Your task to perform on an android device: Search for usb-c to usb-a on ebay, select the first entry, add it to the cart, then select checkout. Image 0: 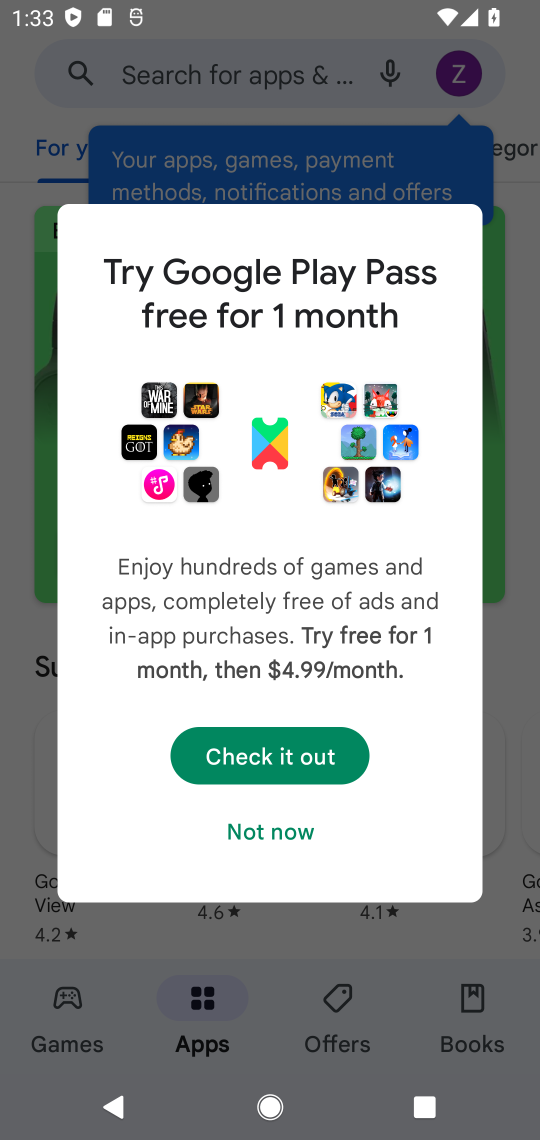
Step 0: press home button
Your task to perform on an android device: Search for usb-c to usb-a on ebay, select the first entry, add it to the cart, then select checkout. Image 1: 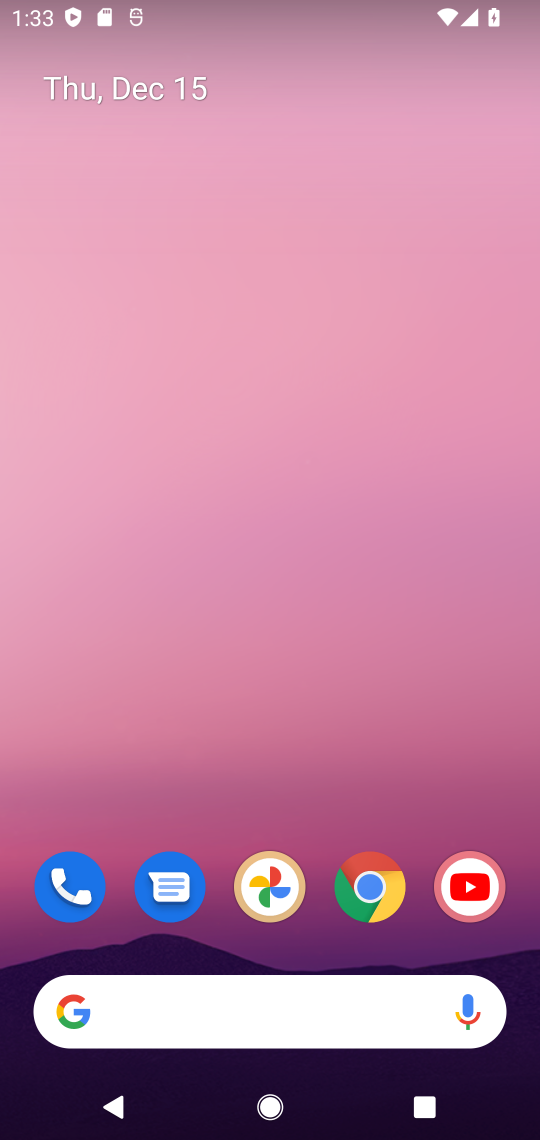
Step 1: click (383, 880)
Your task to perform on an android device: Search for usb-c to usb-a on ebay, select the first entry, add it to the cart, then select checkout. Image 2: 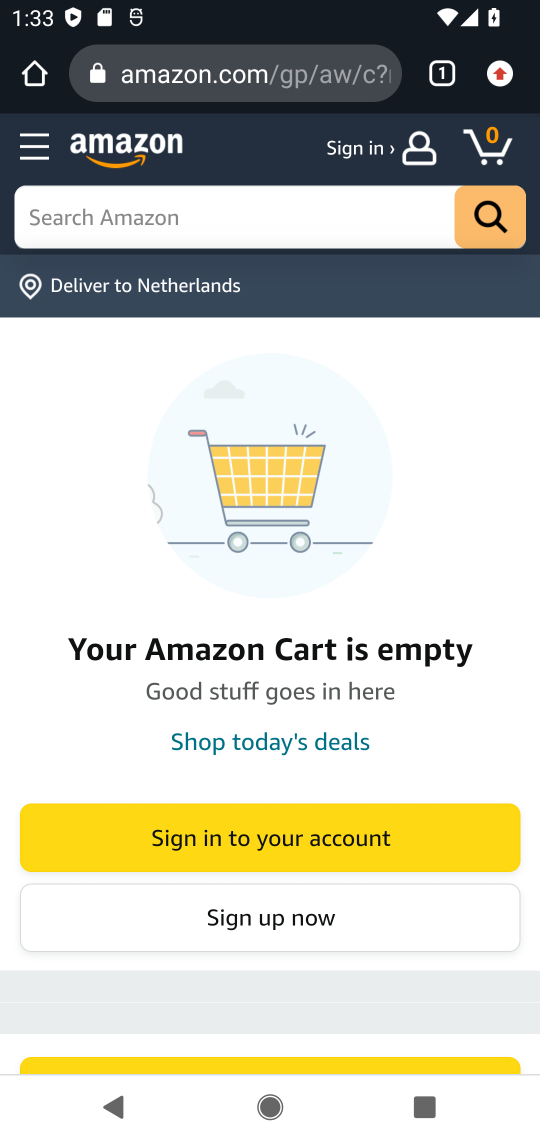
Step 2: click (181, 75)
Your task to perform on an android device: Search for usb-c to usb-a on ebay, select the first entry, add it to the cart, then select checkout. Image 3: 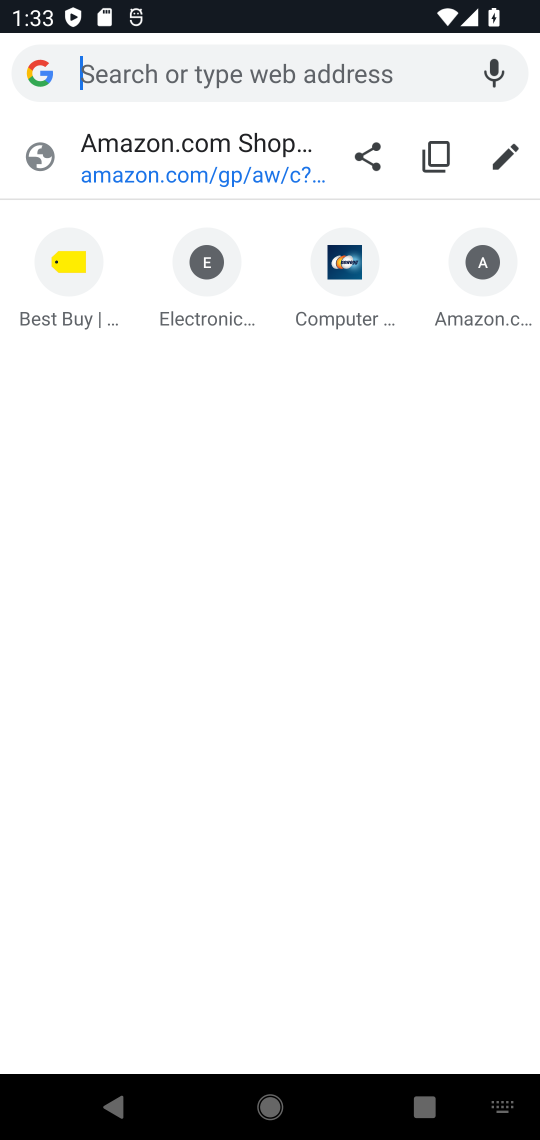
Step 3: type "ebay.com"
Your task to perform on an android device: Search for usb-c to usb-a on ebay, select the first entry, add it to the cart, then select checkout. Image 4: 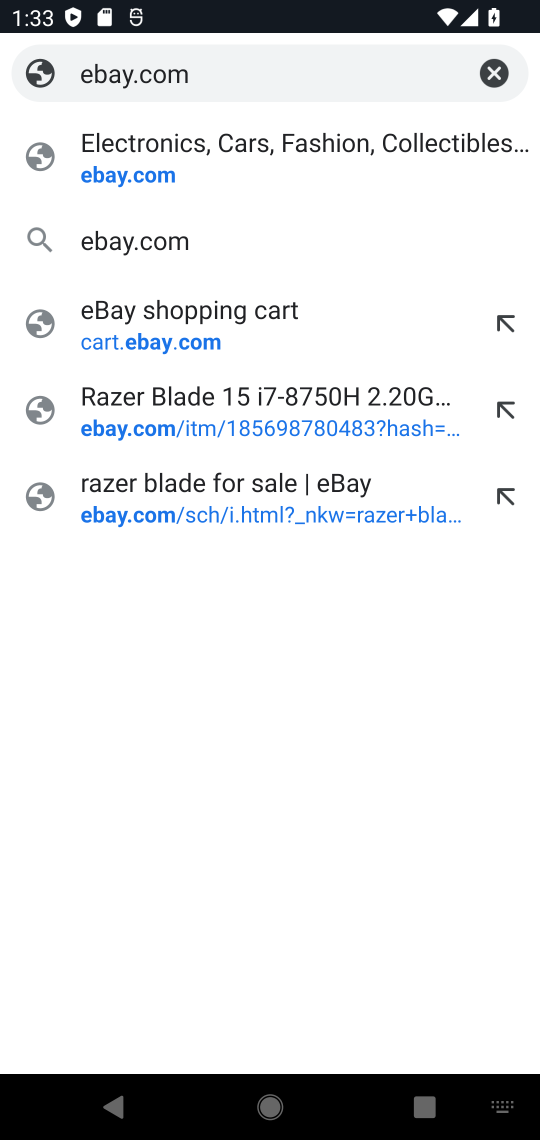
Step 4: click (123, 176)
Your task to perform on an android device: Search for usb-c to usb-a on ebay, select the first entry, add it to the cart, then select checkout. Image 5: 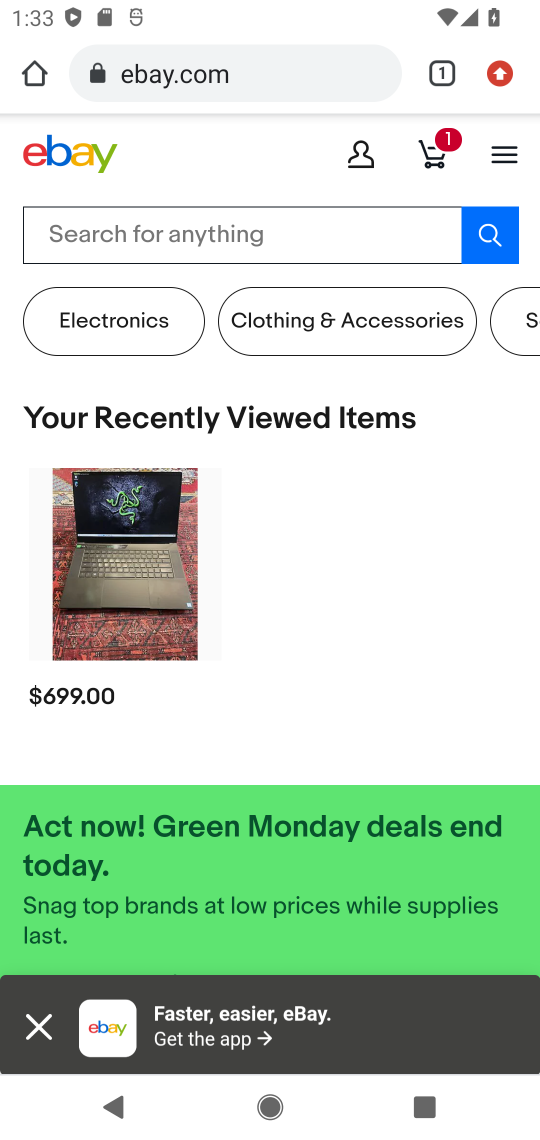
Step 5: click (89, 241)
Your task to perform on an android device: Search for usb-c to usb-a on ebay, select the first entry, add it to the cart, then select checkout. Image 6: 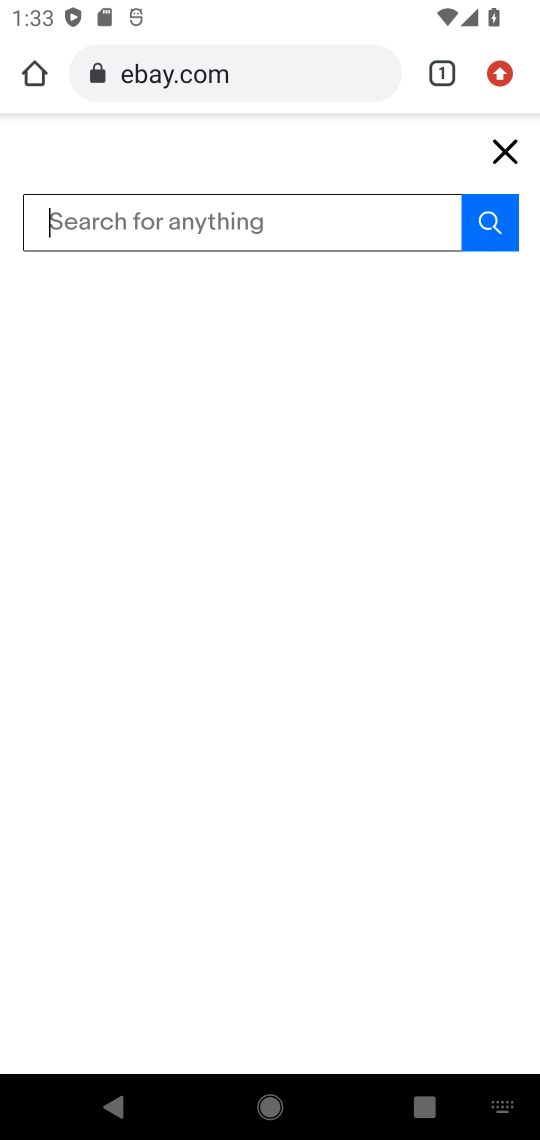
Step 6: type "usb-c to usb-a"
Your task to perform on an android device: Search for usb-c to usb-a on ebay, select the first entry, add it to the cart, then select checkout. Image 7: 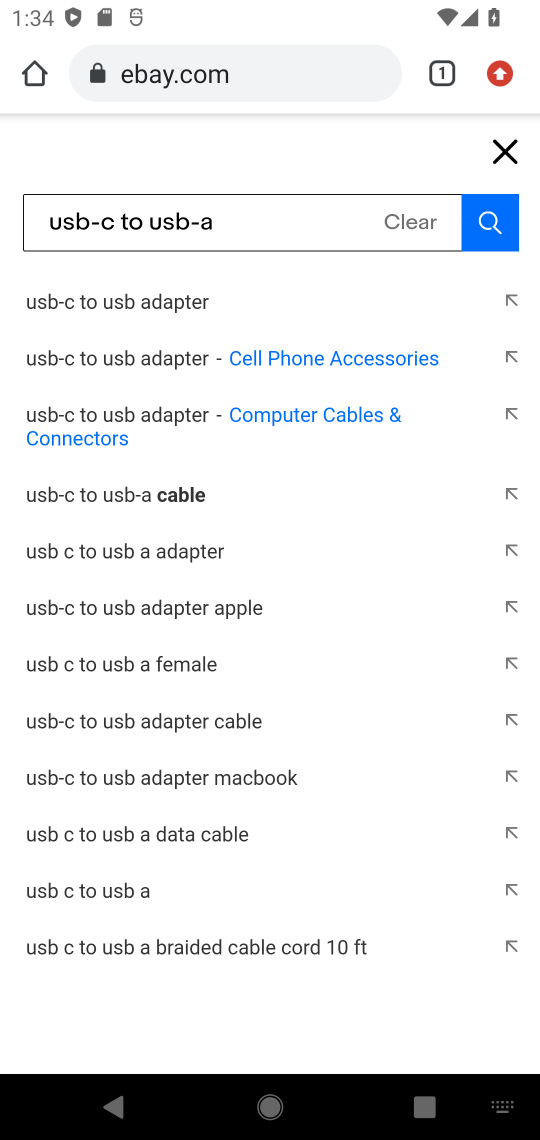
Step 7: click (494, 227)
Your task to perform on an android device: Search for usb-c to usb-a on ebay, select the first entry, add it to the cart, then select checkout. Image 8: 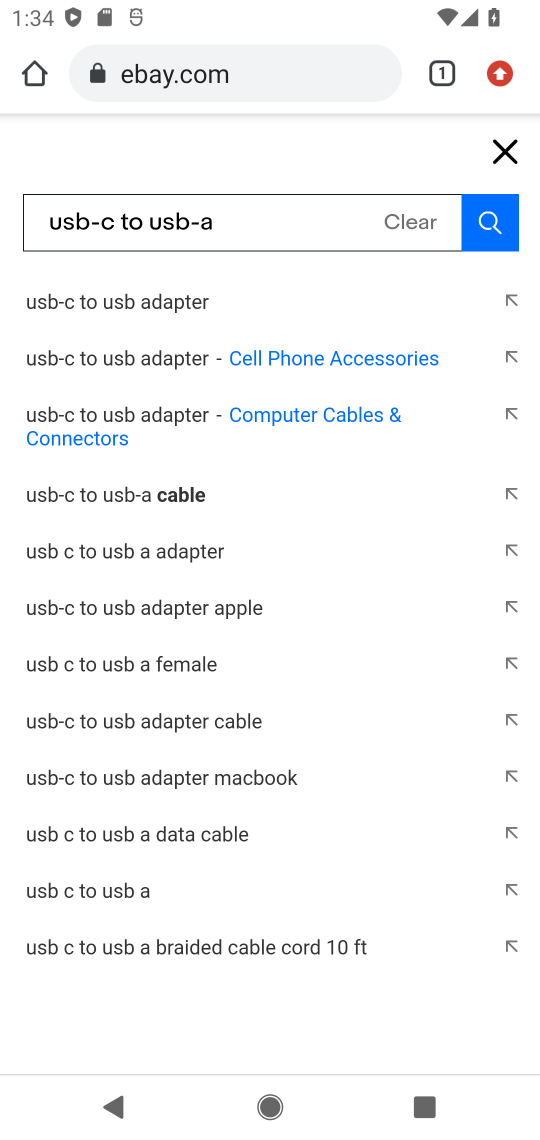
Step 8: click (492, 222)
Your task to perform on an android device: Search for usb-c to usb-a on ebay, select the first entry, add it to the cart, then select checkout. Image 9: 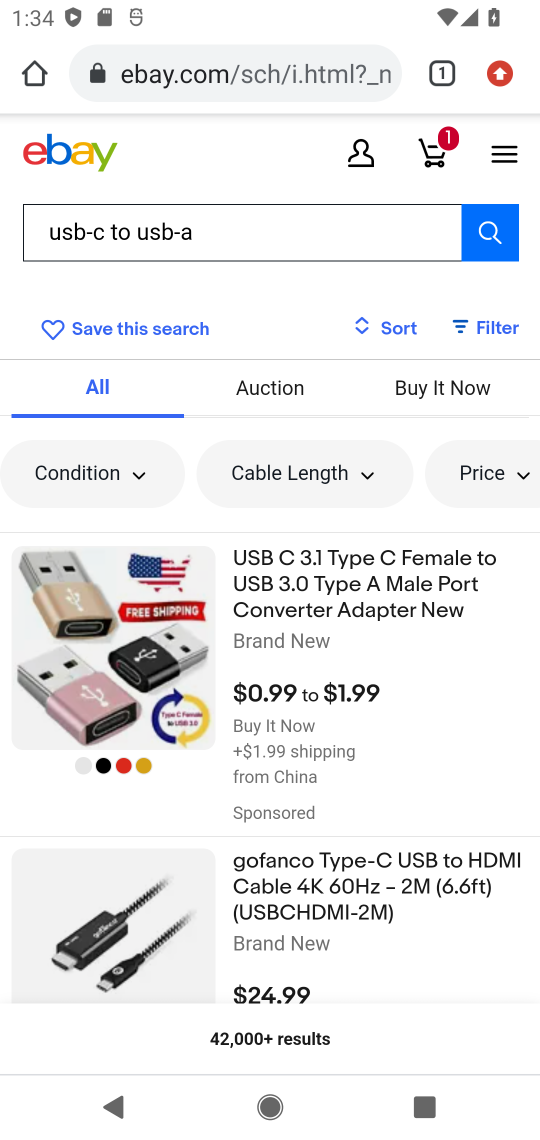
Step 9: click (285, 627)
Your task to perform on an android device: Search for usb-c to usb-a on ebay, select the first entry, add it to the cart, then select checkout. Image 10: 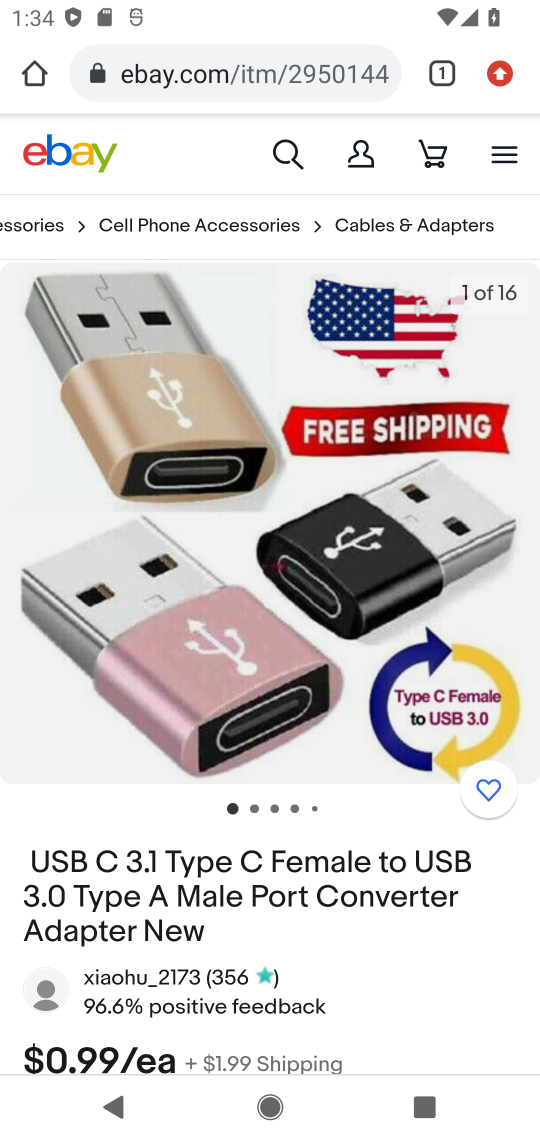
Step 10: drag from (235, 886) to (271, 418)
Your task to perform on an android device: Search for usb-c to usb-a on ebay, select the first entry, add it to the cart, then select checkout. Image 11: 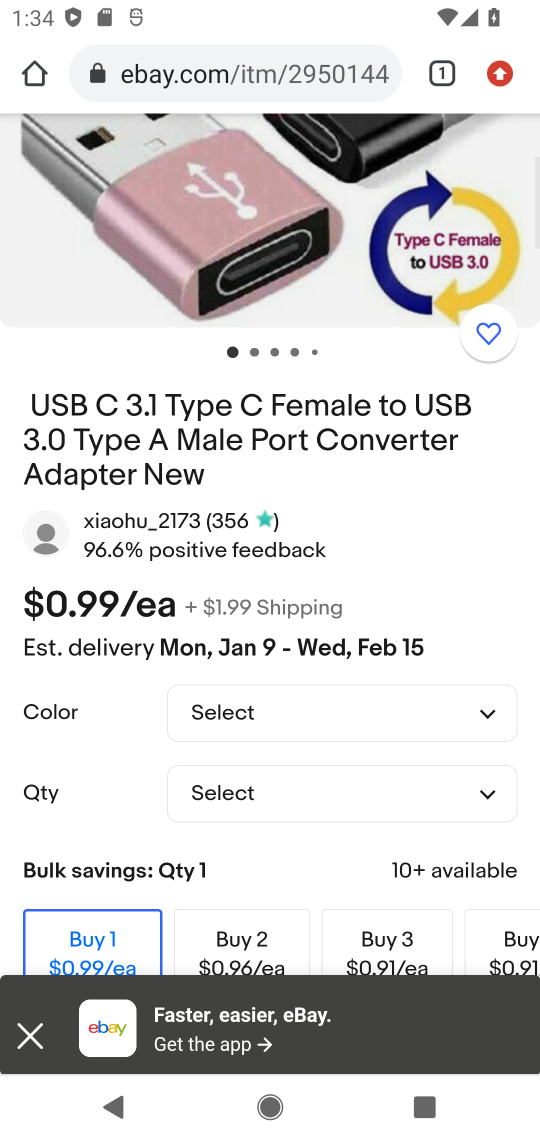
Step 11: drag from (224, 877) to (240, 355)
Your task to perform on an android device: Search for usb-c to usb-a on ebay, select the first entry, add it to the cart, then select checkout. Image 12: 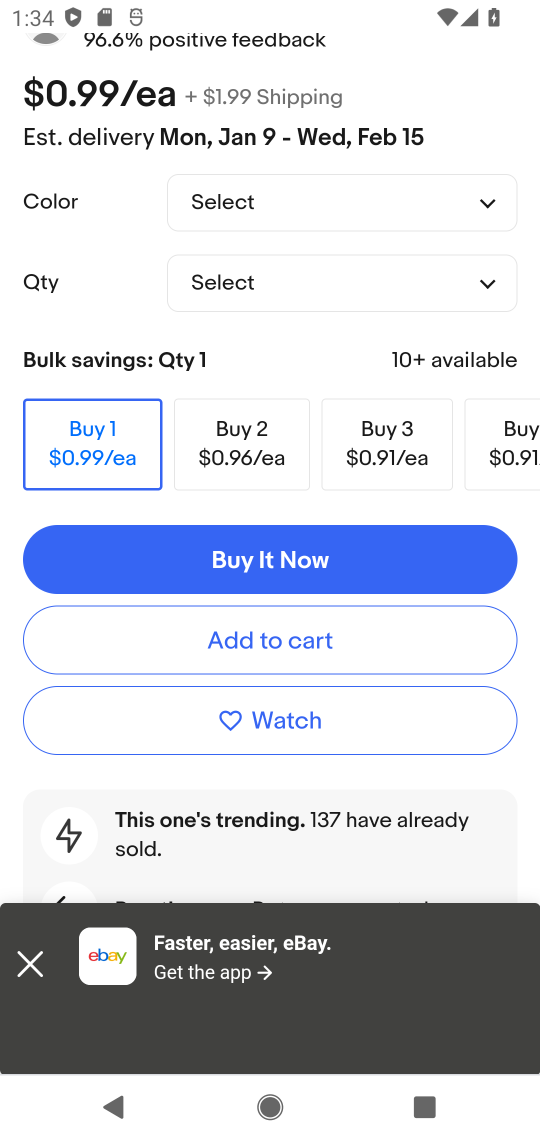
Step 12: click (225, 640)
Your task to perform on an android device: Search for usb-c to usb-a on ebay, select the first entry, add it to the cart, then select checkout. Image 13: 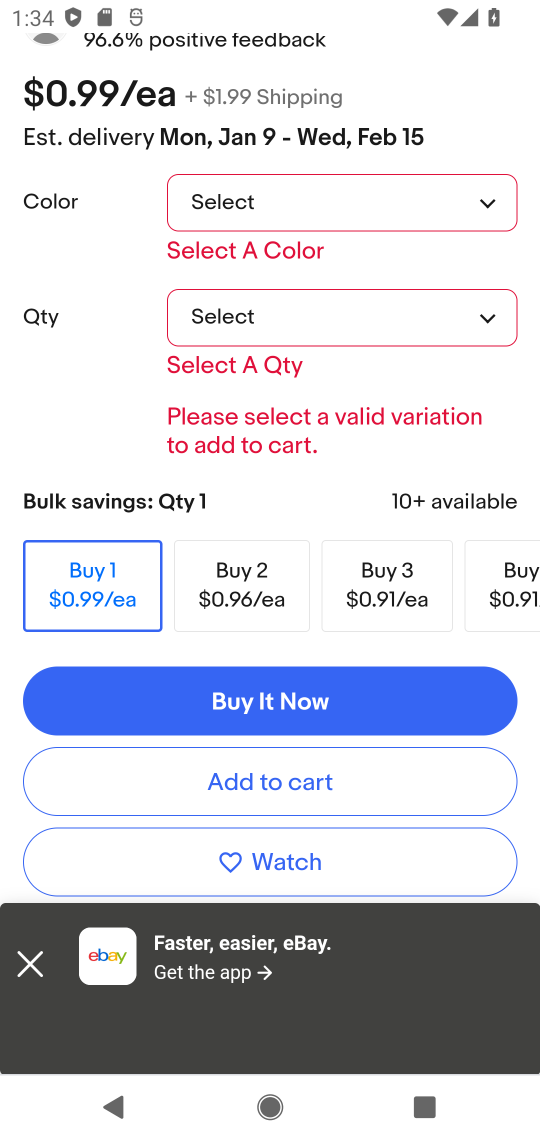
Step 13: click (488, 206)
Your task to perform on an android device: Search for usb-c to usb-a on ebay, select the first entry, add it to the cart, then select checkout. Image 14: 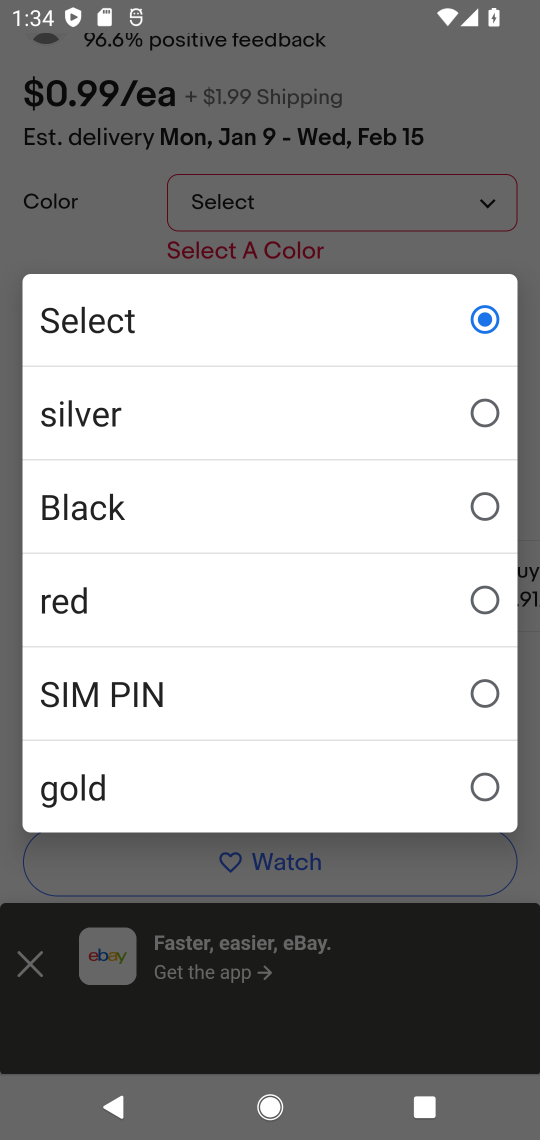
Step 14: click (57, 495)
Your task to perform on an android device: Search for usb-c to usb-a on ebay, select the first entry, add it to the cart, then select checkout. Image 15: 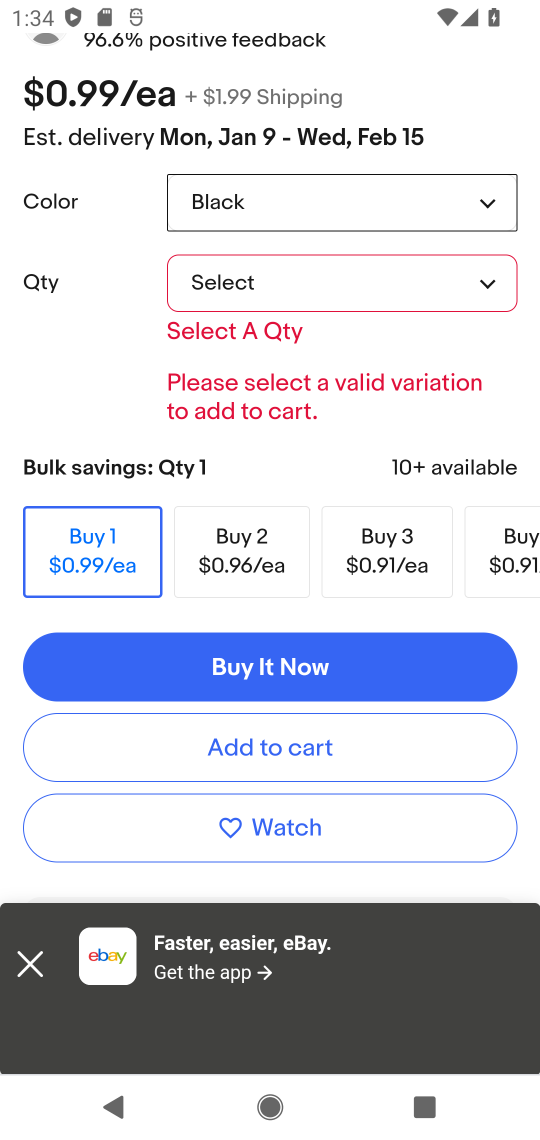
Step 15: click (482, 284)
Your task to perform on an android device: Search for usb-c to usb-a on ebay, select the first entry, add it to the cart, then select checkout. Image 16: 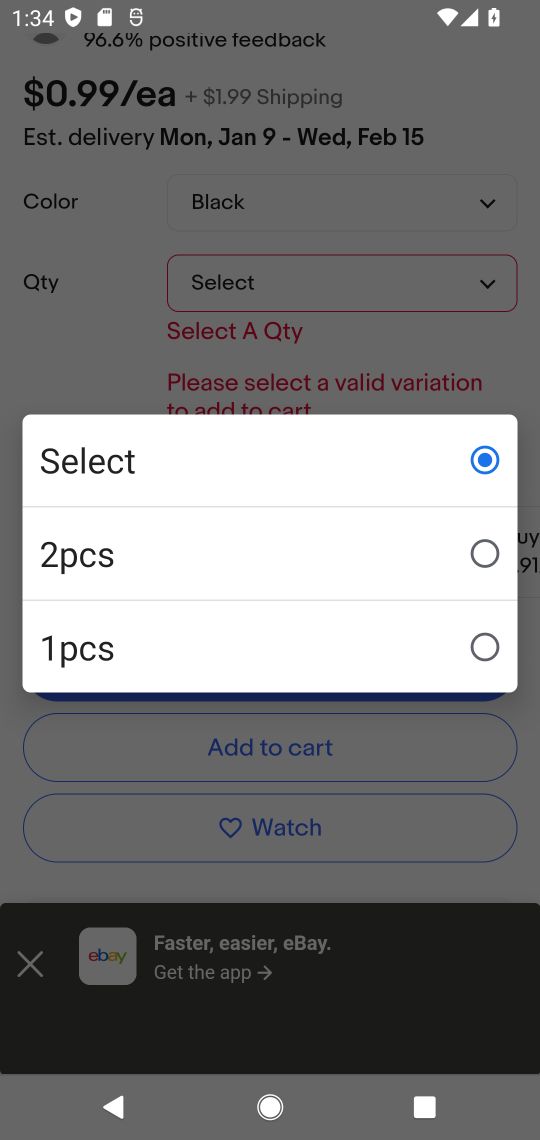
Step 16: click (94, 569)
Your task to perform on an android device: Search for usb-c to usb-a on ebay, select the first entry, add it to the cart, then select checkout. Image 17: 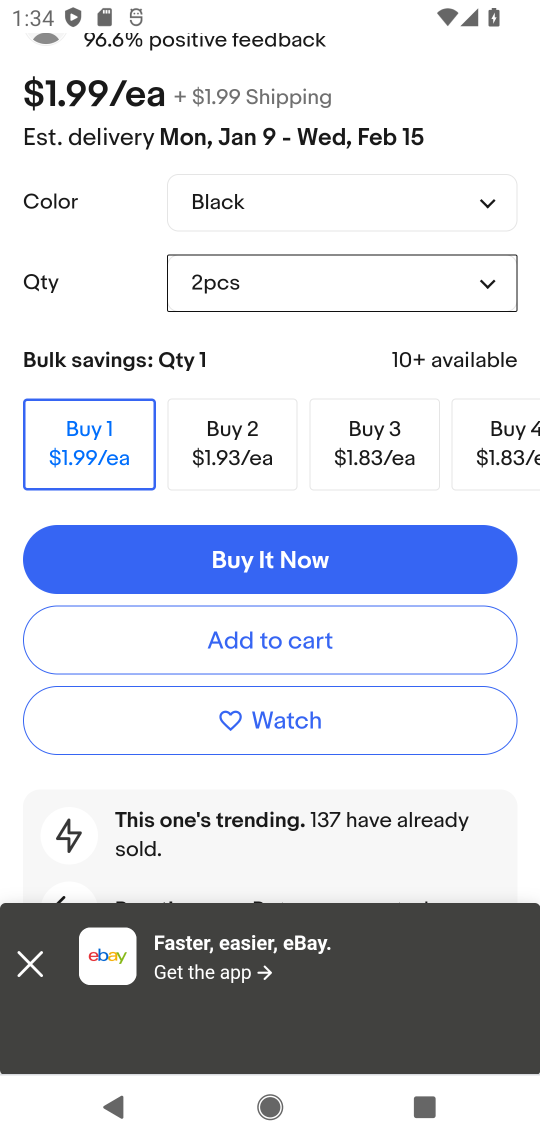
Step 17: click (273, 633)
Your task to perform on an android device: Search for usb-c to usb-a on ebay, select the first entry, add it to the cart, then select checkout. Image 18: 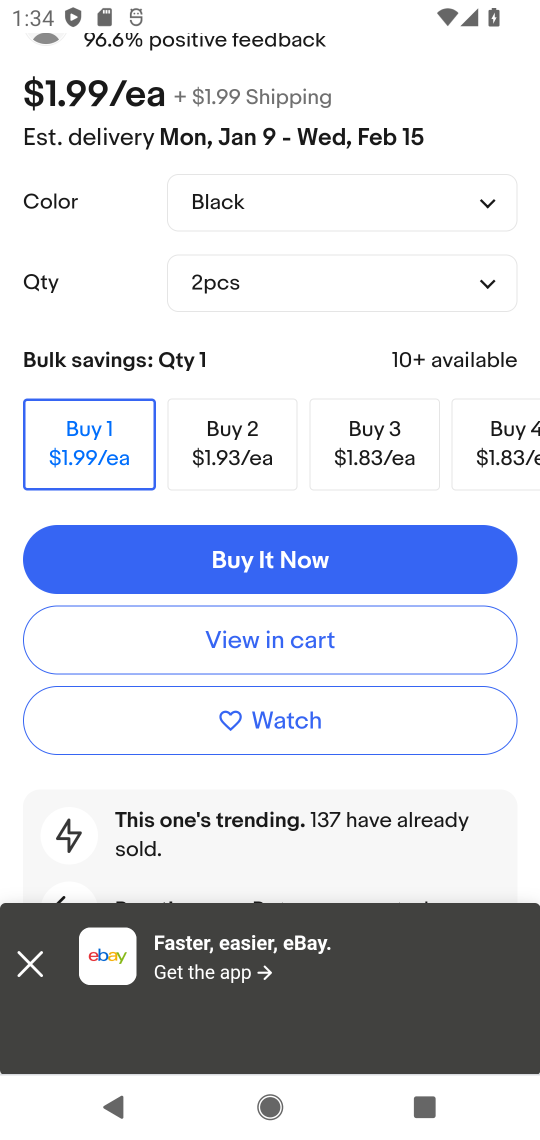
Step 18: click (260, 644)
Your task to perform on an android device: Search for usb-c to usb-a on ebay, select the first entry, add it to the cart, then select checkout. Image 19: 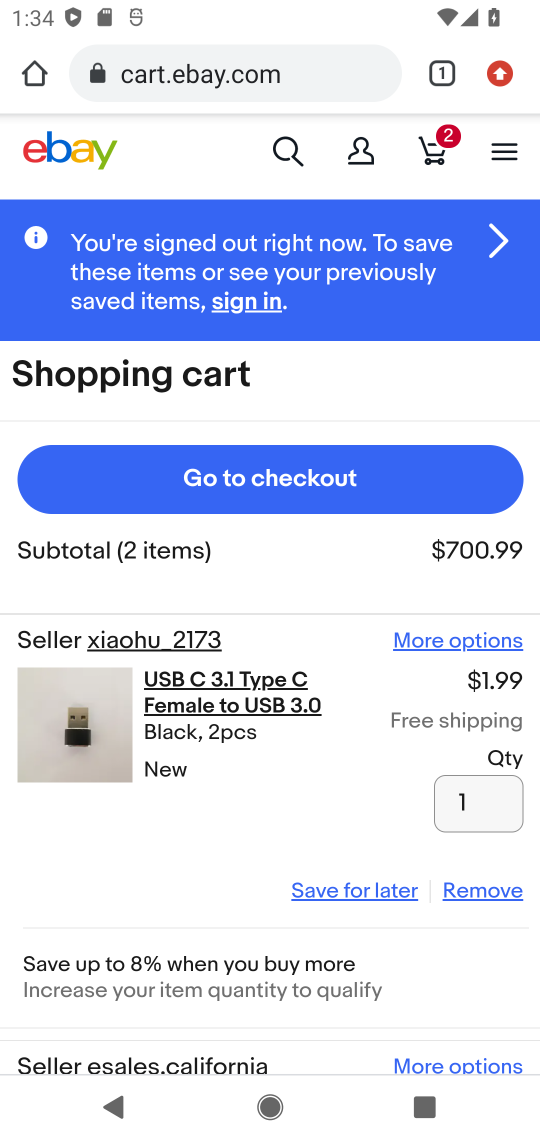
Step 19: click (270, 490)
Your task to perform on an android device: Search for usb-c to usb-a on ebay, select the first entry, add it to the cart, then select checkout. Image 20: 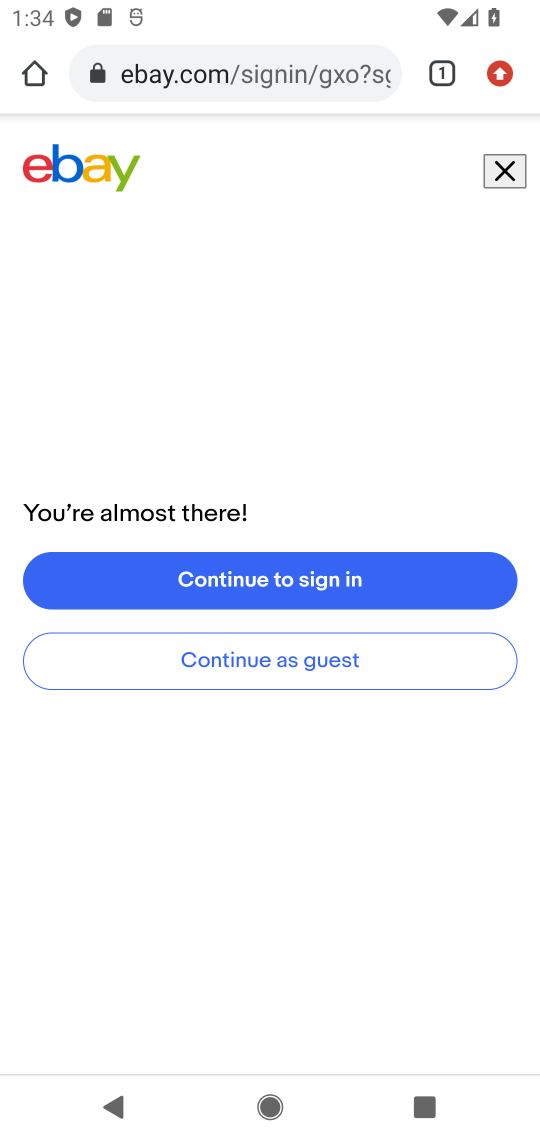
Step 20: task complete